Your task to perform on an android device: empty trash in the gmail app Image 0: 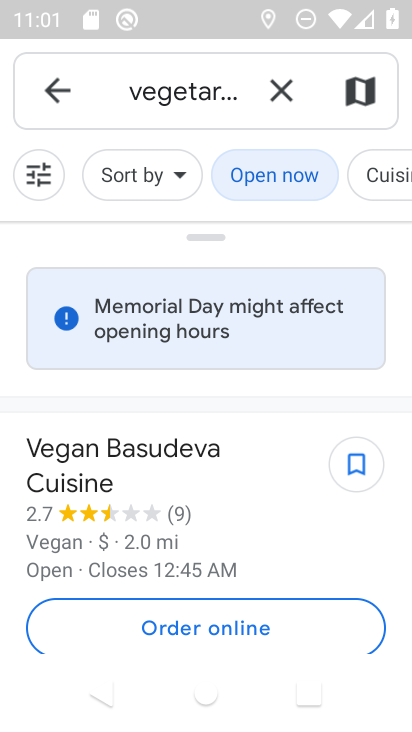
Step 0: press home button
Your task to perform on an android device: empty trash in the gmail app Image 1: 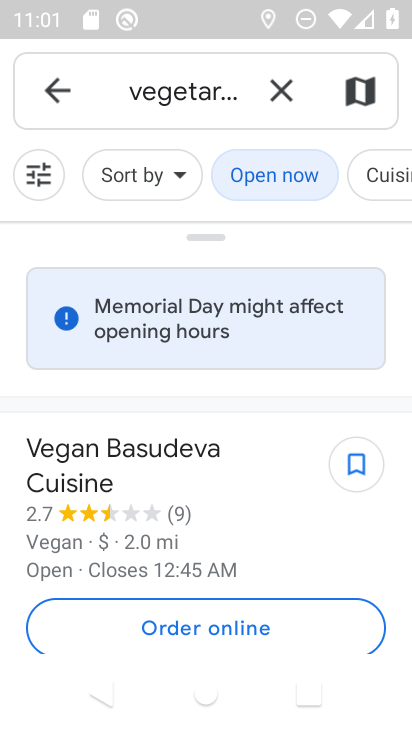
Step 1: press home button
Your task to perform on an android device: empty trash in the gmail app Image 2: 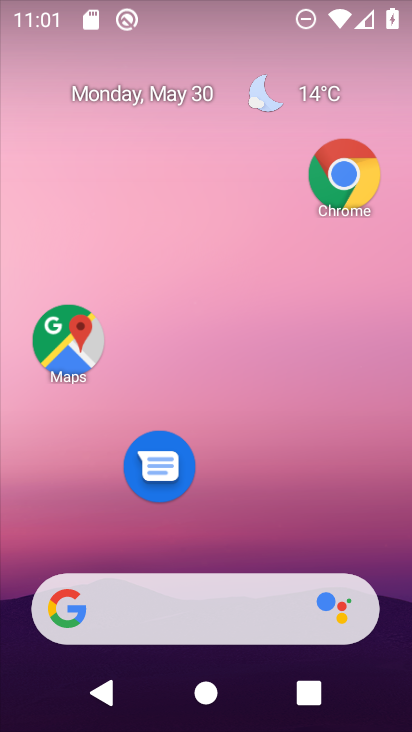
Step 2: drag from (402, 418) to (268, 136)
Your task to perform on an android device: empty trash in the gmail app Image 3: 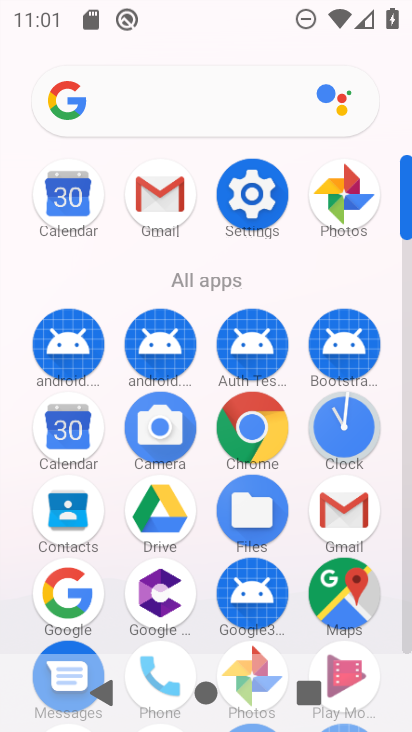
Step 3: click (158, 217)
Your task to perform on an android device: empty trash in the gmail app Image 4: 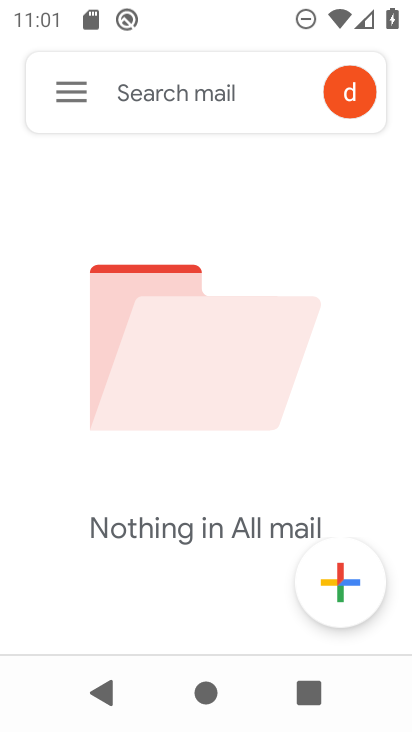
Step 4: click (62, 86)
Your task to perform on an android device: empty trash in the gmail app Image 5: 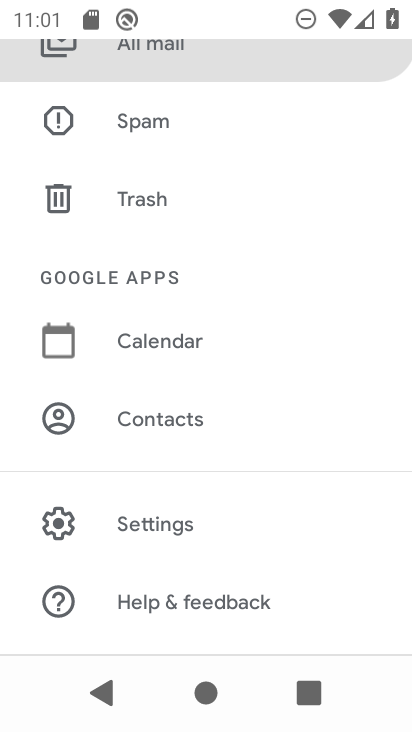
Step 5: click (129, 192)
Your task to perform on an android device: empty trash in the gmail app Image 6: 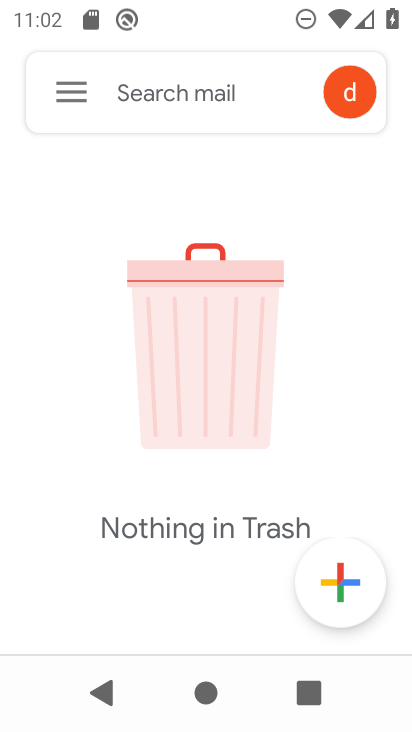
Step 6: task complete